Your task to perform on an android device: Check the weather Image 0: 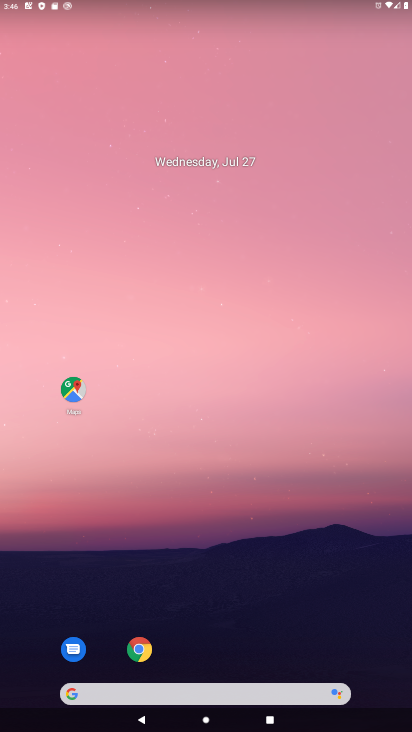
Step 0: drag from (11, 298) to (379, 293)
Your task to perform on an android device: Check the weather Image 1: 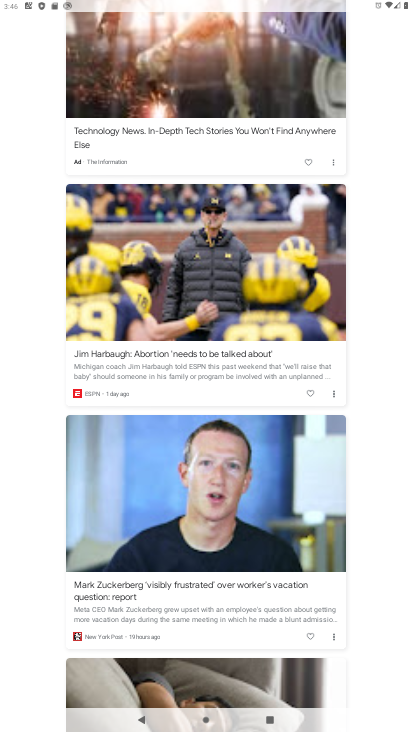
Step 1: drag from (275, 181) to (262, 562)
Your task to perform on an android device: Check the weather Image 2: 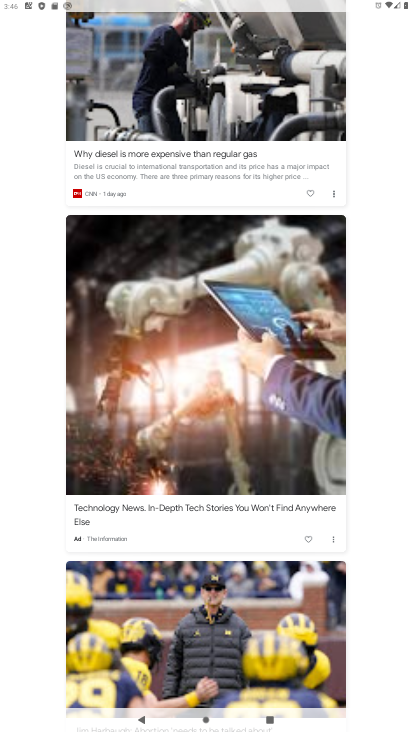
Step 2: drag from (256, 187) to (229, 585)
Your task to perform on an android device: Check the weather Image 3: 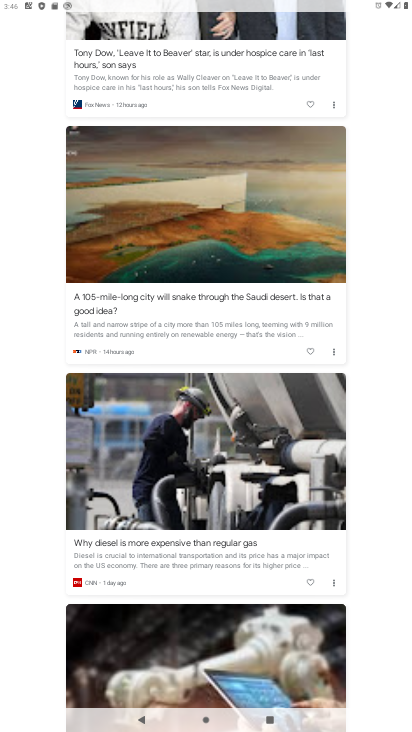
Step 3: drag from (216, 95) to (216, 554)
Your task to perform on an android device: Check the weather Image 4: 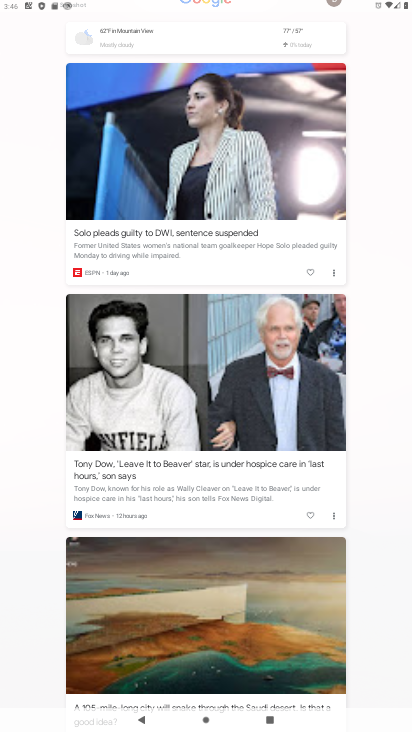
Step 4: drag from (251, 151) to (246, 471)
Your task to perform on an android device: Check the weather Image 5: 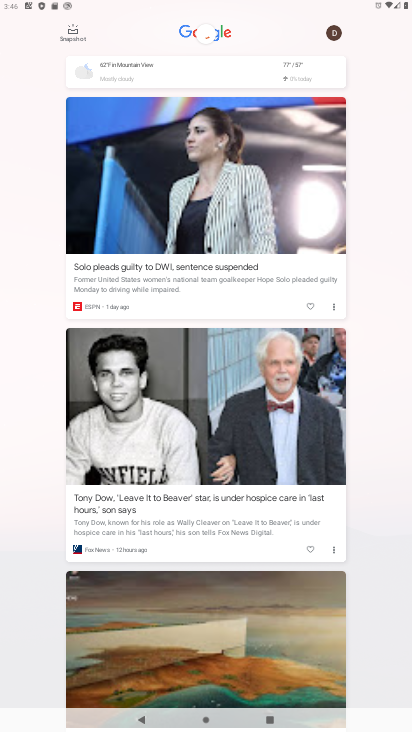
Step 5: click (290, 59)
Your task to perform on an android device: Check the weather Image 6: 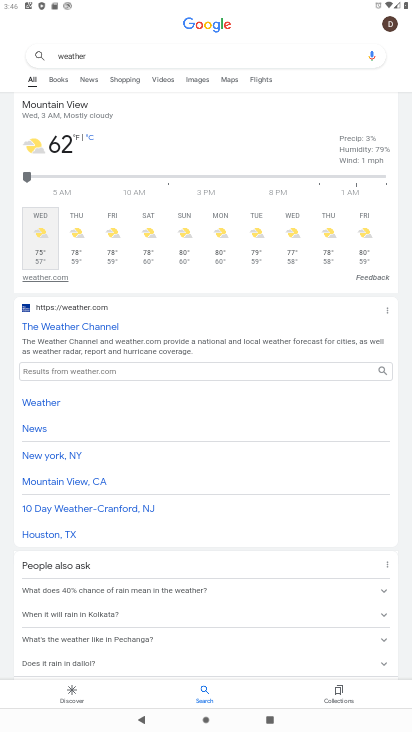
Step 6: task complete